Your task to perform on an android device: turn on improve location accuracy Image 0: 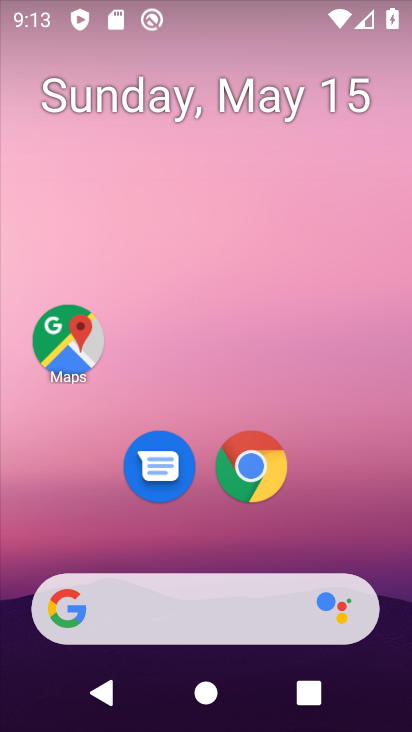
Step 0: drag from (343, 546) to (326, 88)
Your task to perform on an android device: turn on improve location accuracy Image 1: 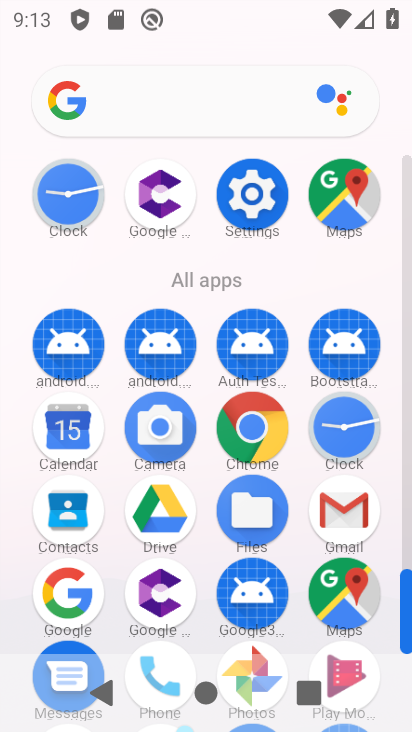
Step 1: click (254, 178)
Your task to perform on an android device: turn on improve location accuracy Image 2: 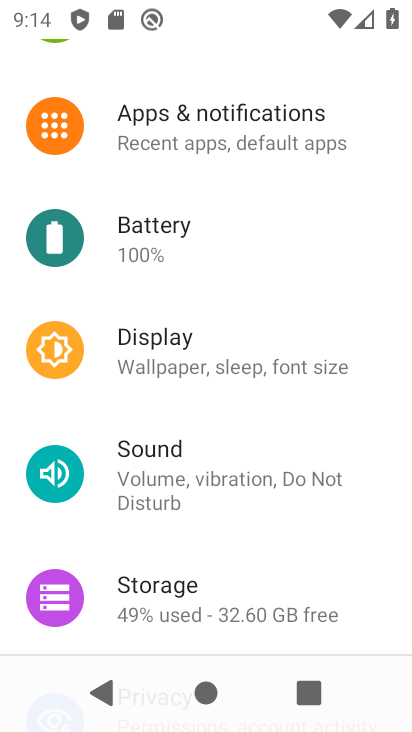
Step 2: drag from (231, 515) to (261, 97)
Your task to perform on an android device: turn on improve location accuracy Image 3: 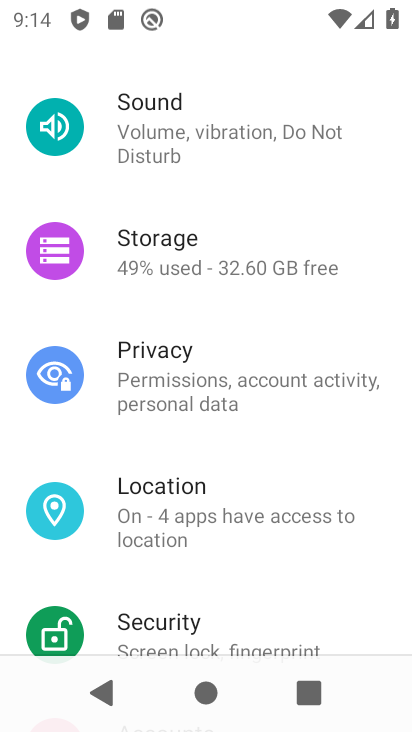
Step 3: click (201, 499)
Your task to perform on an android device: turn on improve location accuracy Image 4: 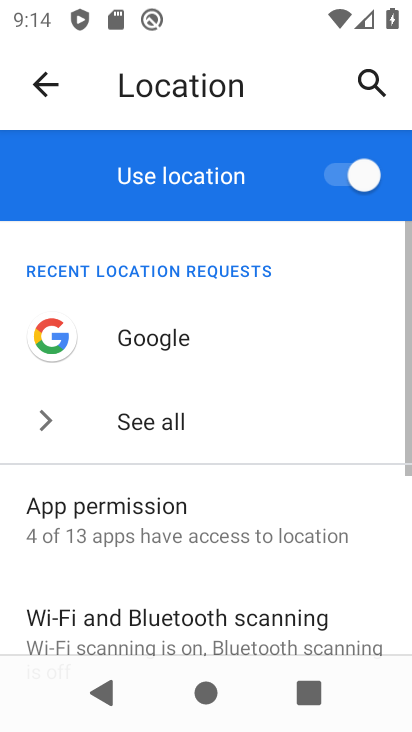
Step 4: drag from (289, 618) to (260, 206)
Your task to perform on an android device: turn on improve location accuracy Image 5: 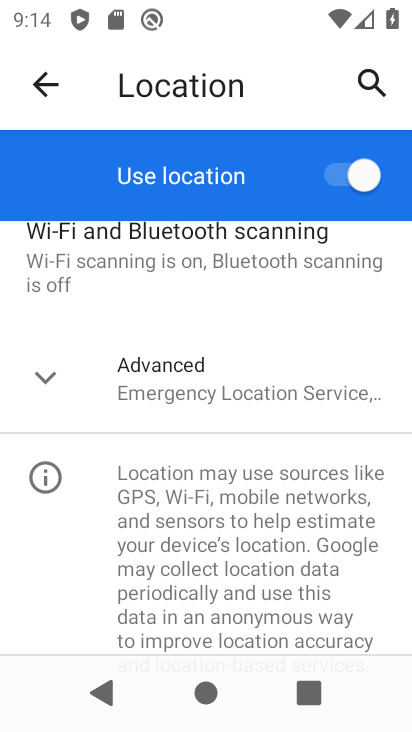
Step 5: click (228, 373)
Your task to perform on an android device: turn on improve location accuracy Image 6: 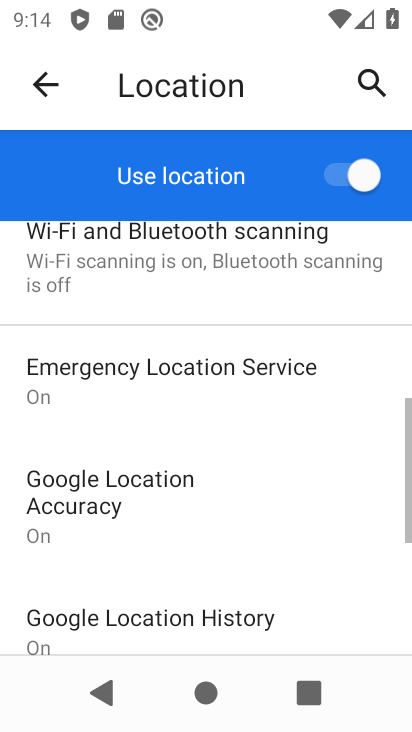
Step 6: drag from (298, 611) to (299, 336)
Your task to perform on an android device: turn on improve location accuracy Image 7: 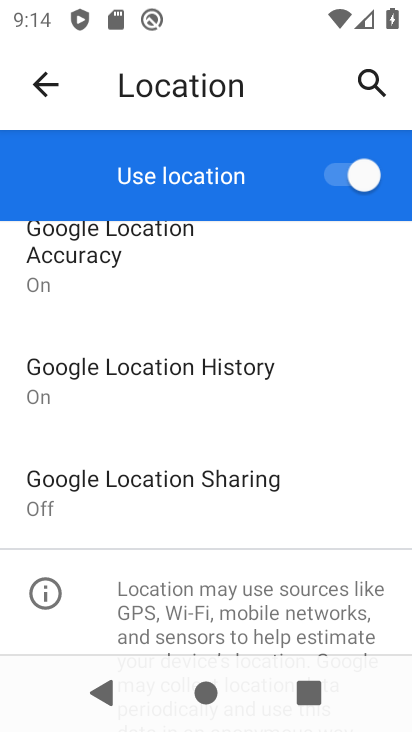
Step 7: drag from (295, 342) to (334, 576)
Your task to perform on an android device: turn on improve location accuracy Image 8: 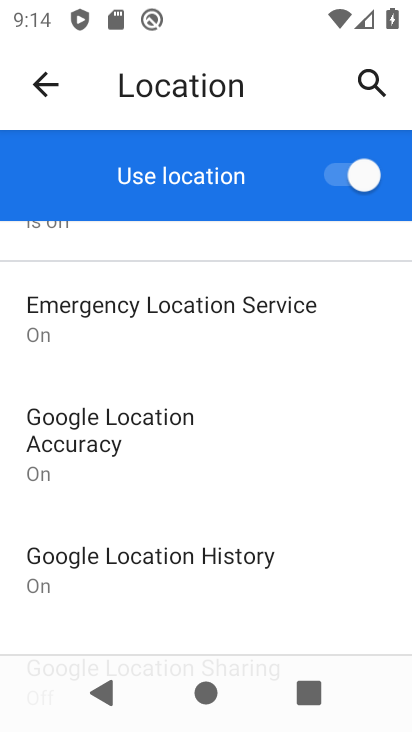
Step 8: click (178, 449)
Your task to perform on an android device: turn on improve location accuracy Image 9: 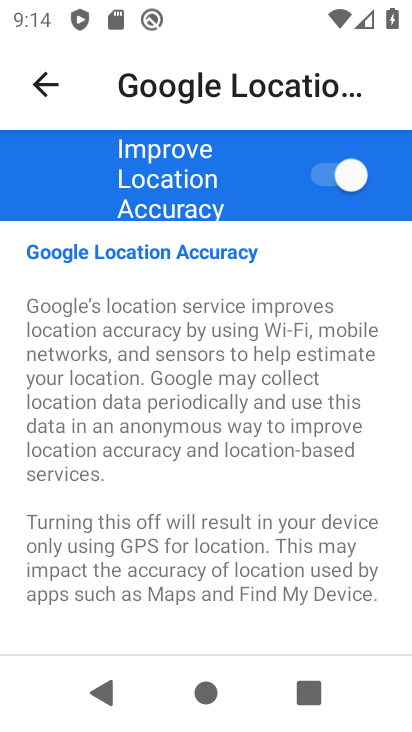
Step 9: task complete